Your task to perform on an android device: Show me recent news Image 0: 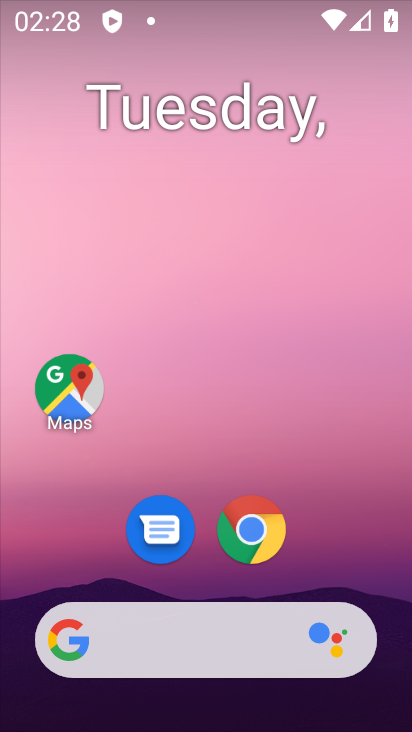
Step 0: click (126, 657)
Your task to perform on an android device: Show me recent news Image 1: 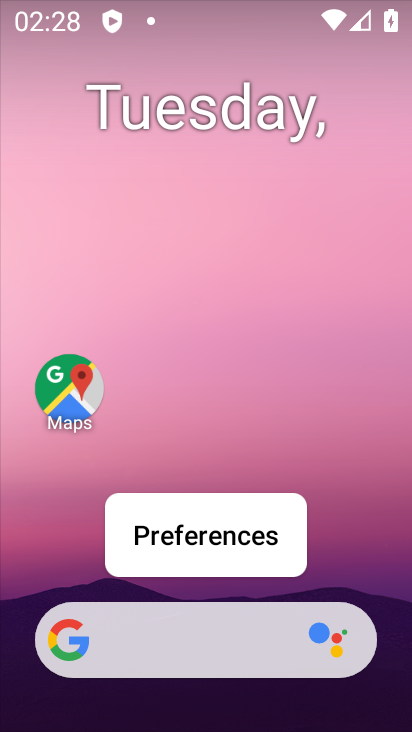
Step 1: click (113, 647)
Your task to perform on an android device: Show me recent news Image 2: 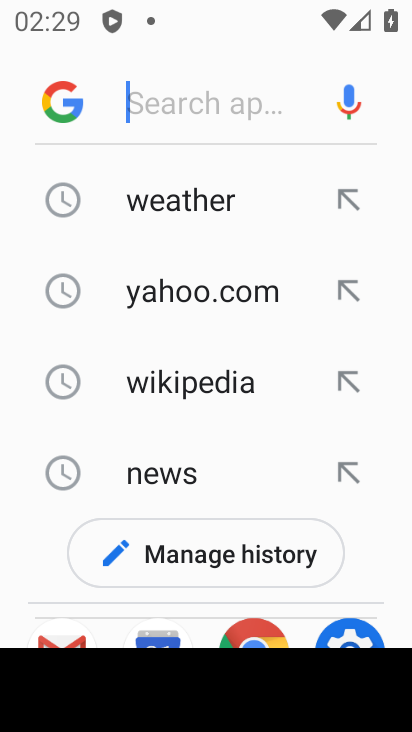
Step 2: type "recent news"
Your task to perform on an android device: Show me recent news Image 3: 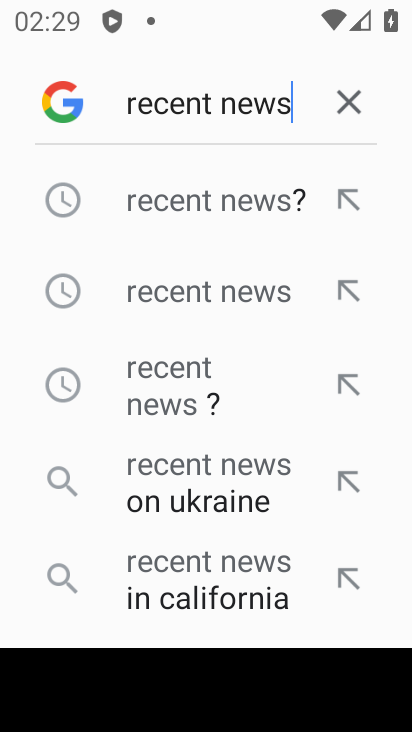
Step 3: click (165, 205)
Your task to perform on an android device: Show me recent news Image 4: 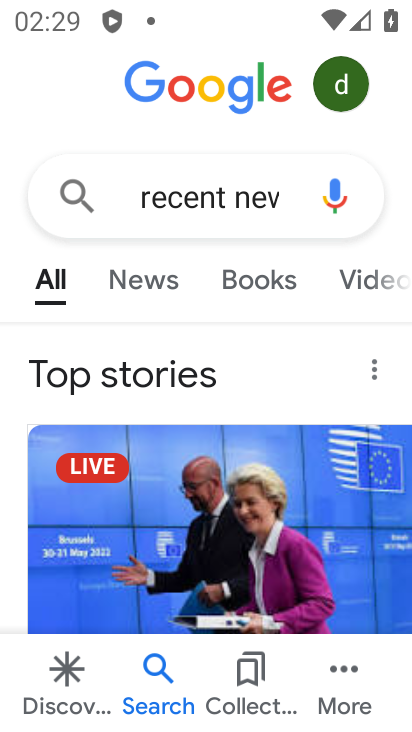
Step 4: click (142, 276)
Your task to perform on an android device: Show me recent news Image 5: 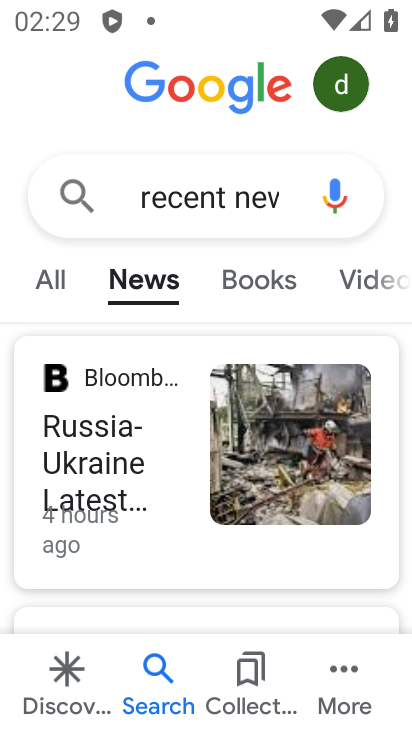
Step 5: task complete